Your task to perform on an android device: turn on improve location accuracy Image 0: 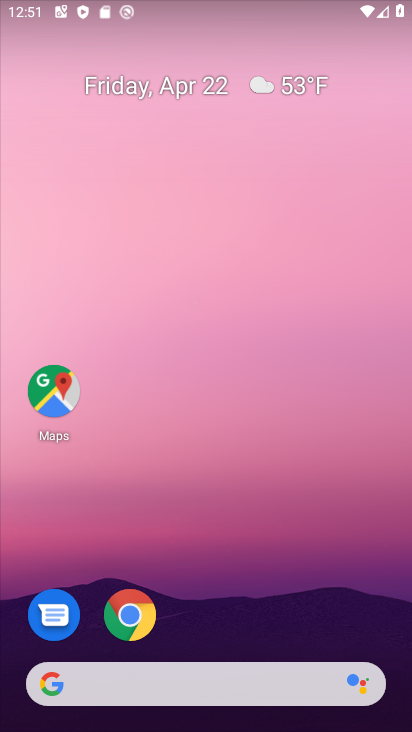
Step 0: drag from (327, 616) to (274, 5)
Your task to perform on an android device: turn on improve location accuracy Image 1: 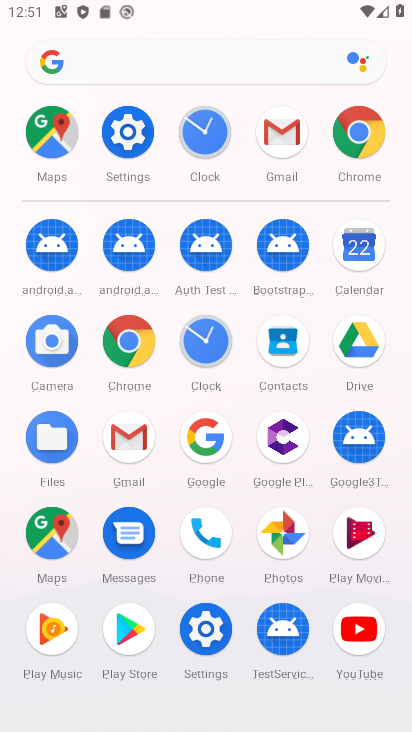
Step 1: click (129, 131)
Your task to perform on an android device: turn on improve location accuracy Image 2: 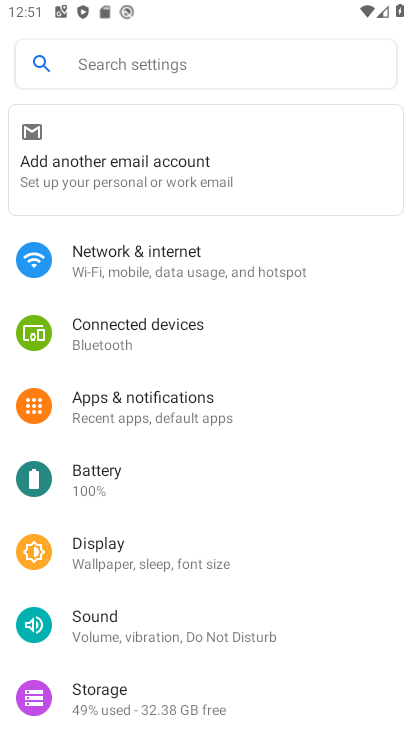
Step 2: drag from (338, 640) to (345, 302)
Your task to perform on an android device: turn on improve location accuracy Image 3: 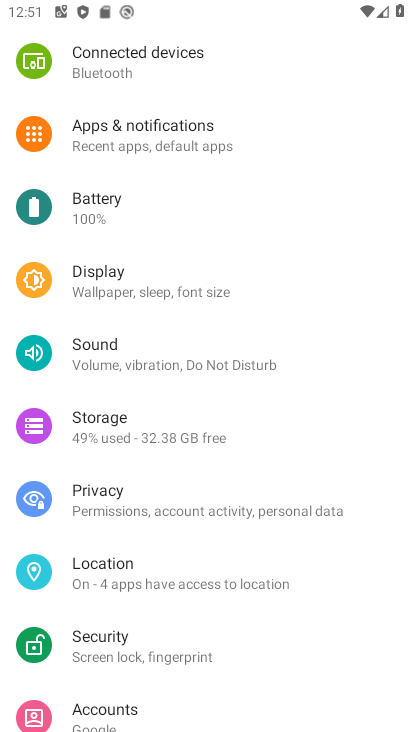
Step 3: click (91, 579)
Your task to perform on an android device: turn on improve location accuracy Image 4: 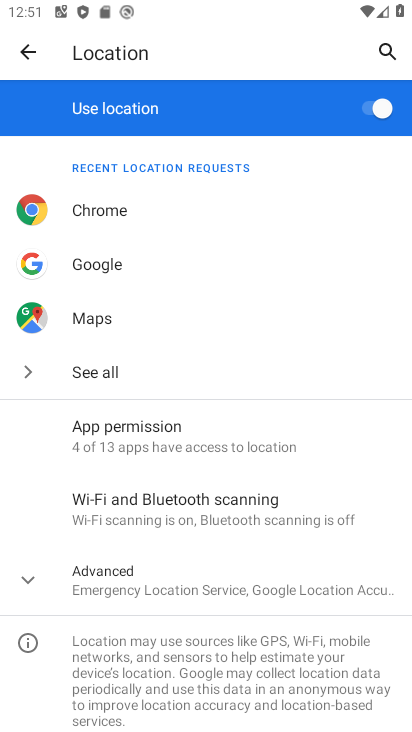
Step 4: click (32, 585)
Your task to perform on an android device: turn on improve location accuracy Image 5: 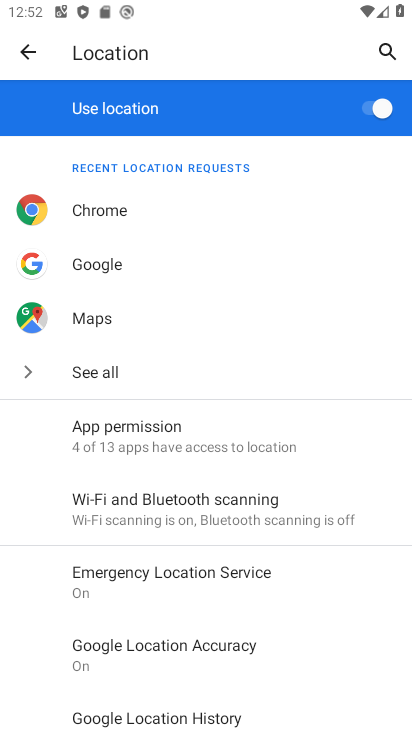
Step 5: click (182, 650)
Your task to perform on an android device: turn on improve location accuracy Image 6: 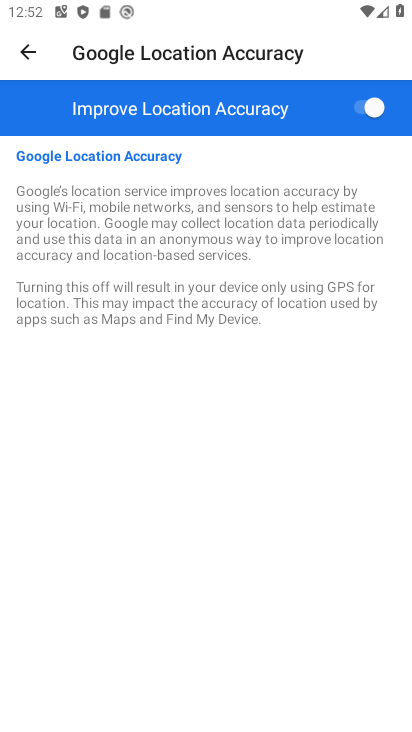
Step 6: task complete